Your task to perform on an android device: toggle notification dots Image 0: 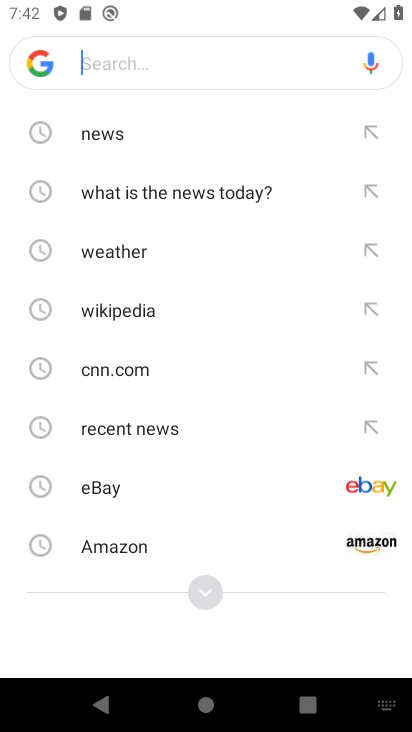
Step 0: press home button
Your task to perform on an android device: toggle notification dots Image 1: 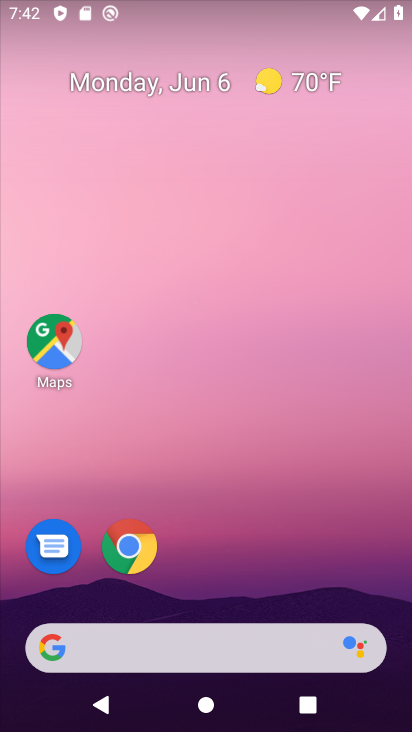
Step 1: drag from (199, 546) to (252, 183)
Your task to perform on an android device: toggle notification dots Image 2: 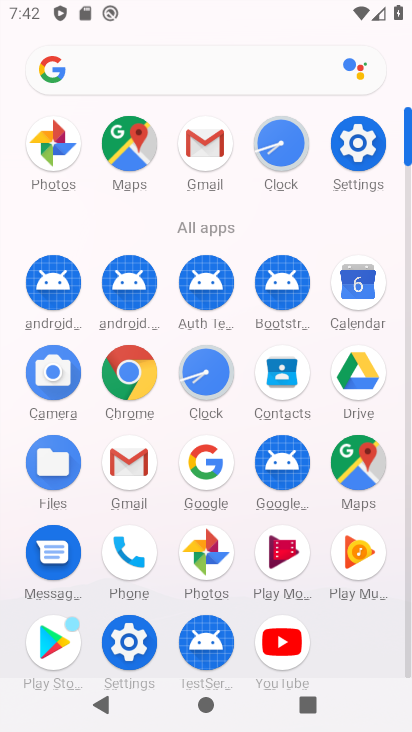
Step 2: click (352, 142)
Your task to perform on an android device: toggle notification dots Image 3: 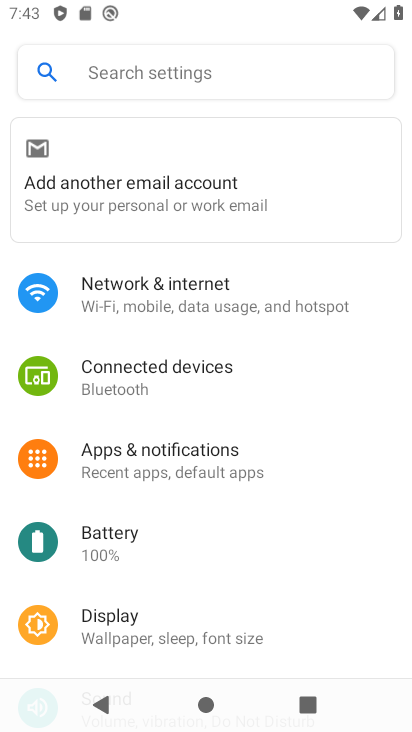
Step 3: click (118, 474)
Your task to perform on an android device: toggle notification dots Image 4: 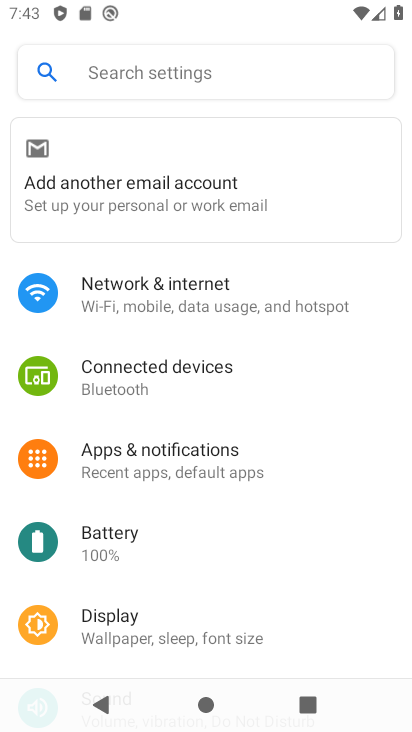
Step 4: click (118, 474)
Your task to perform on an android device: toggle notification dots Image 5: 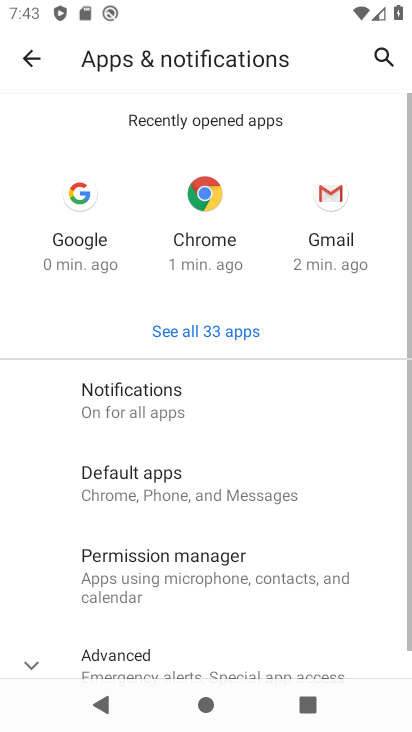
Step 5: click (257, 388)
Your task to perform on an android device: toggle notification dots Image 6: 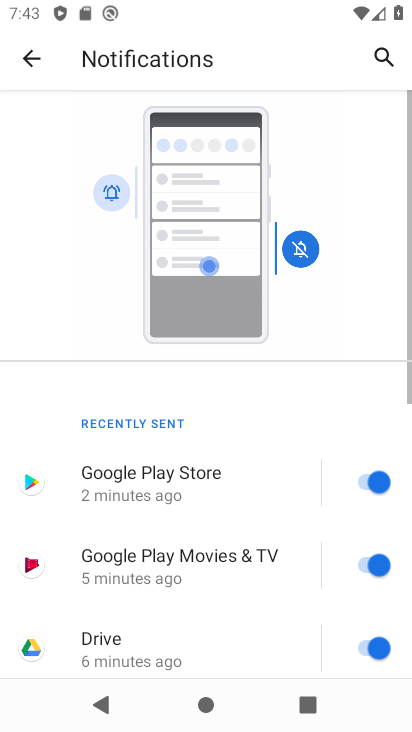
Step 6: drag from (242, 606) to (342, 128)
Your task to perform on an android device: toggle notification dots Image 7: 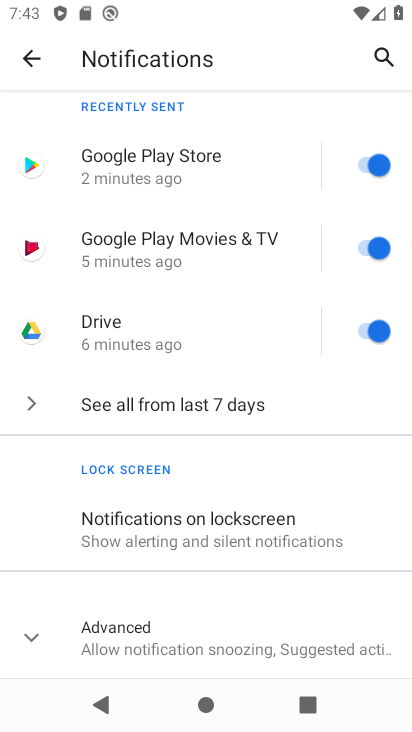
Step 7: click (196, 648)
Your task to perform on an android device: toggle notification dots Image 8: 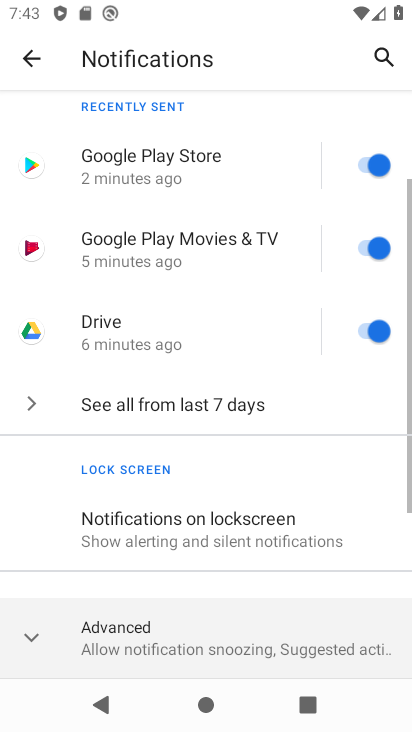
Step 8: drag from (196, 648) to (340, 6)
Your task to perform on an android device: toggle notification dots Image 9: 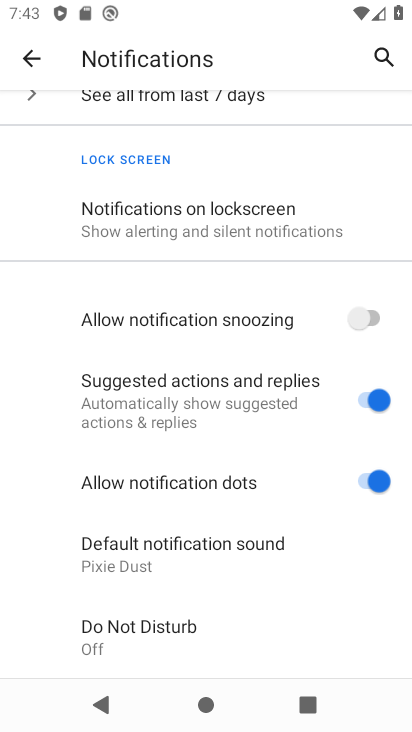
Step 9: click (375, 482)
Your task to perform on an android device: toggle notification dots Image 10: 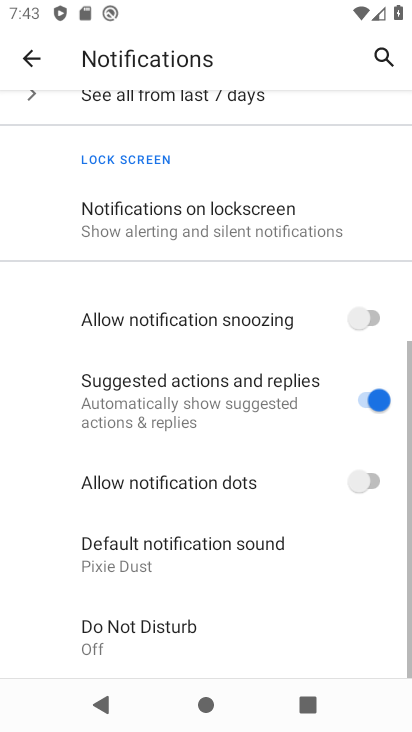
Step 10: task complete